Your task to perform on an android device: toggle notification dots Image 0: 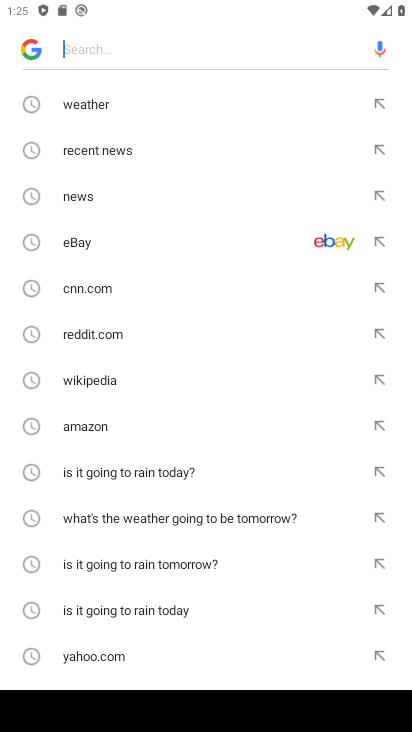
Step 0: press home button
Your task to perform on an android device: toggle notification dots Image 1: 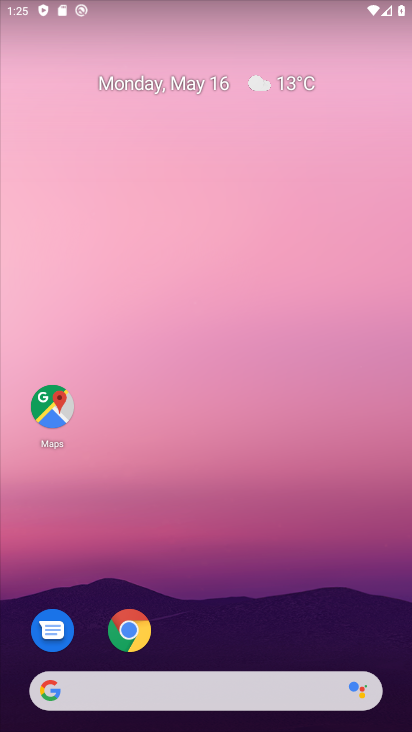
Step 1: drag from (199, 418) to (150, 236)
Your task to perform on an android device: toggle notification dots Image 2: 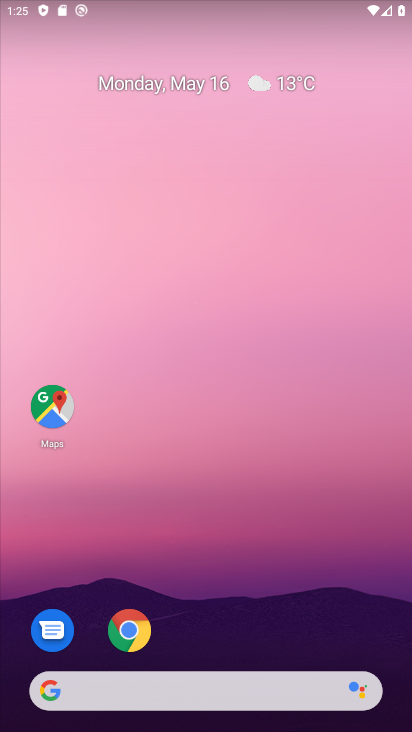
Step 2: drag from (264, 649) to (207, 9)
Your task to perform on an android device: toggle notification dots Image 3: 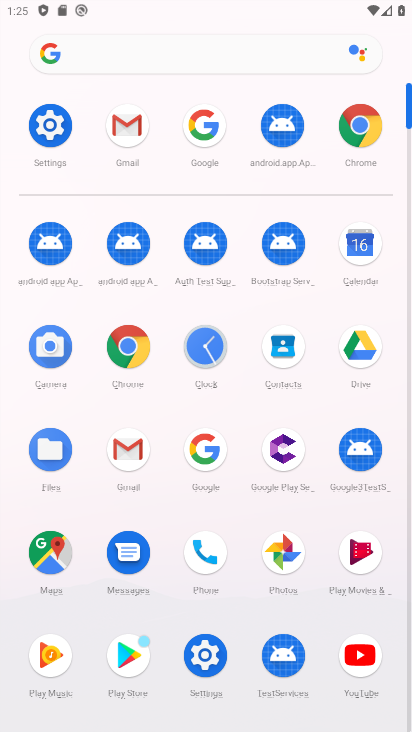
Step 3: click (47, 121)
Your task to perform on an android device: toggle notification dots Image 4: 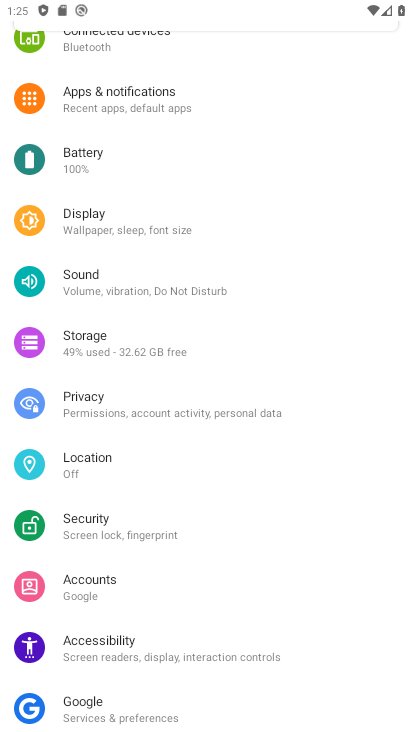
Step 4: click (72, 286)
Your task to perform on an android device: toggle notification dots Image 5: 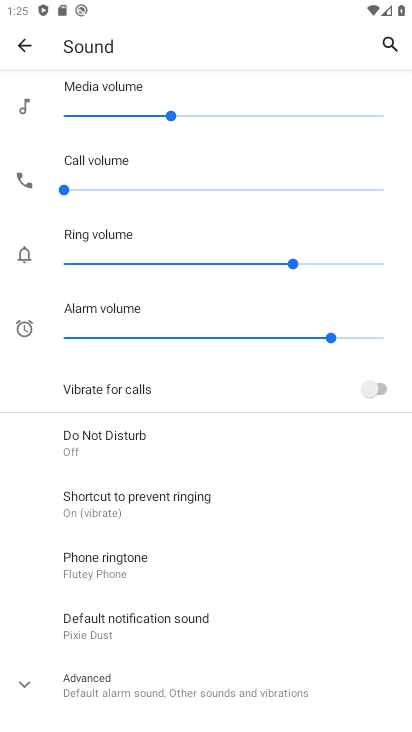
Step 5: click (172, 684)
Your task to perform on an android device: toggle notification dots Image 6: 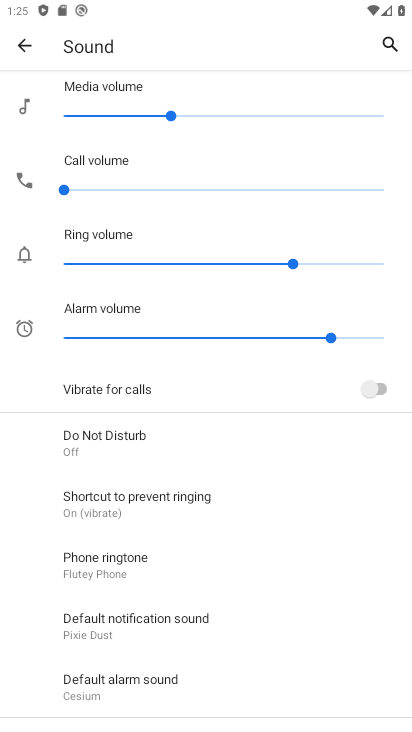
Step 6: drag from (305, 636) to (246, 305)
Your task to perform on an android device: toggle notification dots Image 7: 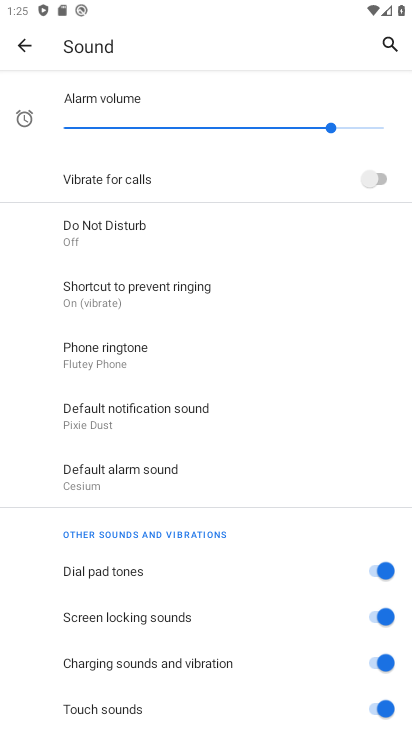
Step 7: drag from (251, 685) to (189, 282)
Your task to perform on an android device: toggle notification dots Image 8: 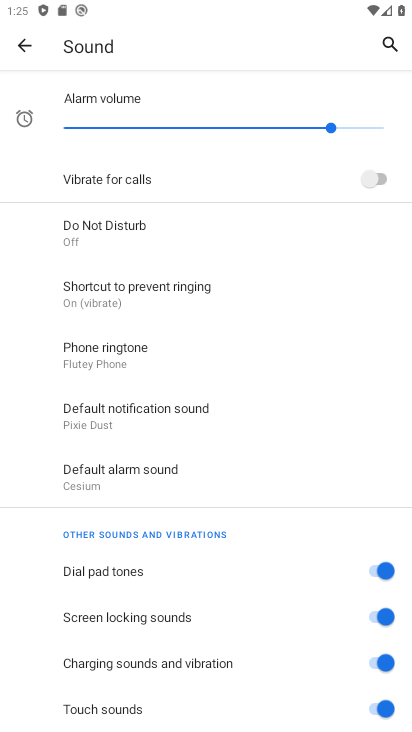
Step 8: drag from (274, 318) to (290, 670)
Your task to perform on an android device: toggle notification dots Image 9: 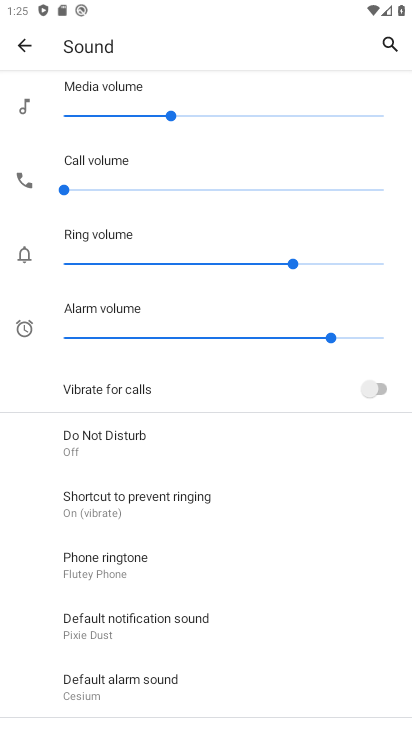
Step 9: press back button
Your task to perform on an android device: toggle notification dots Image 10: 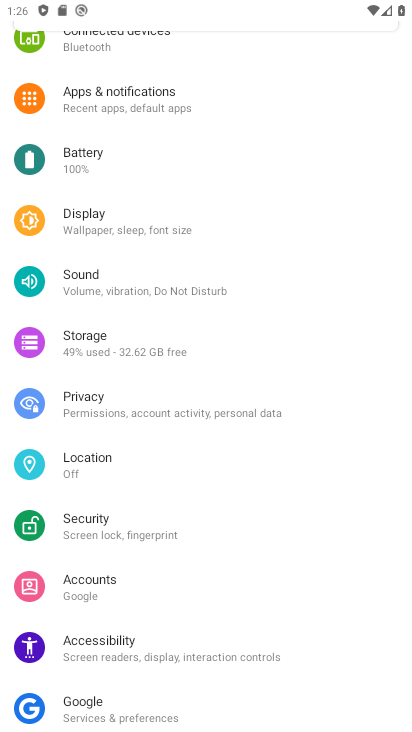
Step 10: click (159, 106)
Your task to perform on an android device: toggle notification dots Image 11: 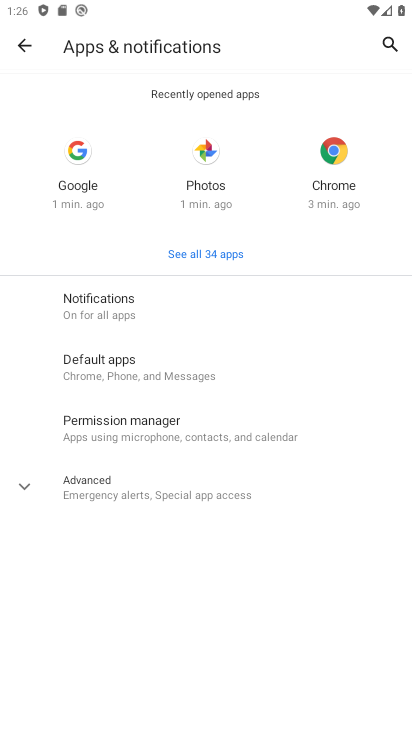
Step 11: click (107, 489)
Your task to perform on an android device: toggle notification dots Image 12: 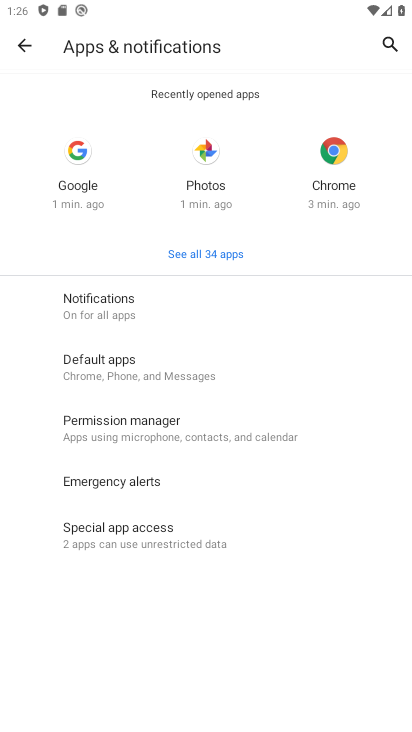
Step 12: click (108, 305)
Your task to perform on an android device: toggle notification dots Image 13: 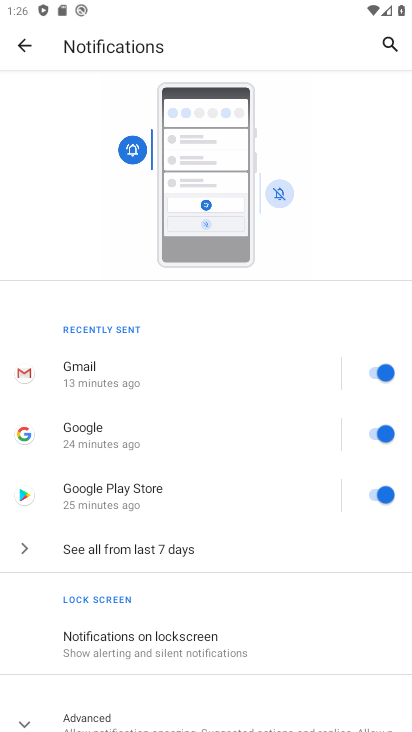
Step 13: drag from (151, 697) to (60, 360)
Your task to perform on an android device: toggle notification dots Image 14: 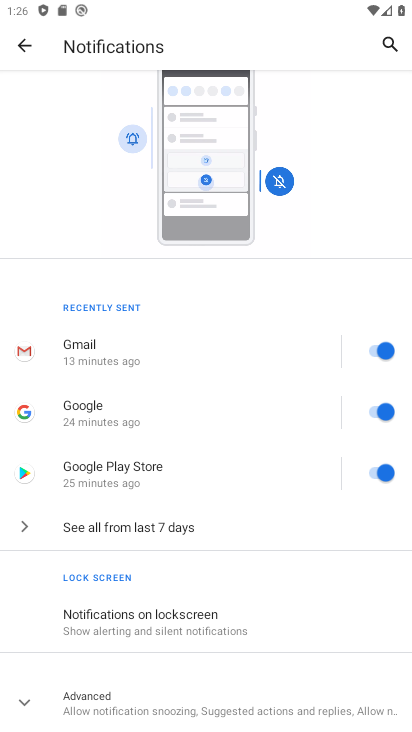
Step 14: click (116, 696)
Your task to perform on an android device: toggle notification dots Image 15: 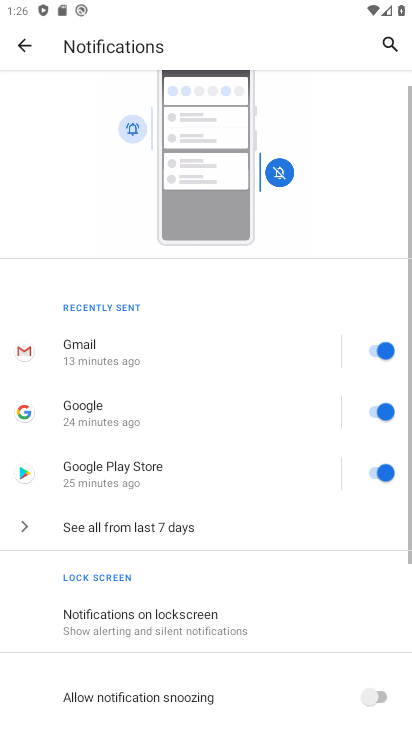
Step 15: drag from (176, 696) to (144, 434)
Your task to perform on an android device: toggle notification dots Image 16: 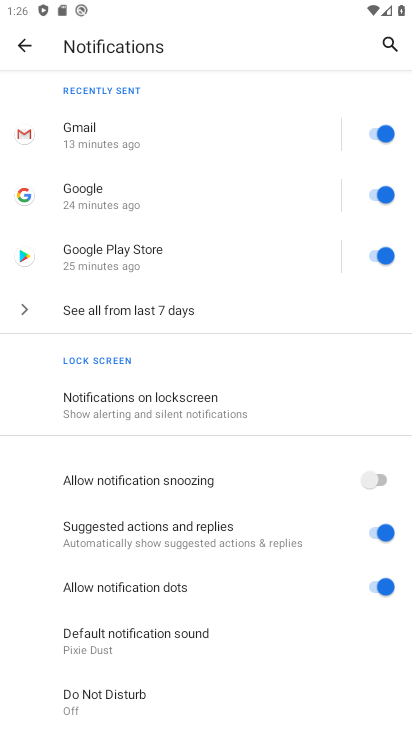
Step 16: click (391, 594)
Your task to perform on an android device: toggle notification dots Image 17: 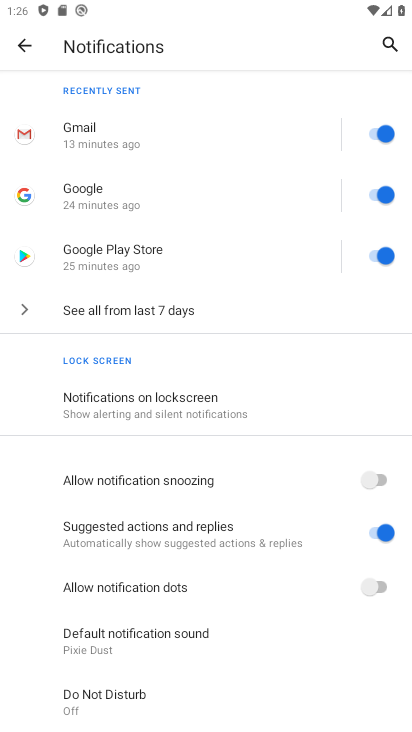
Step 17: task complete